Your task to perform on an android device: empty trash in the gmail app Image 0: 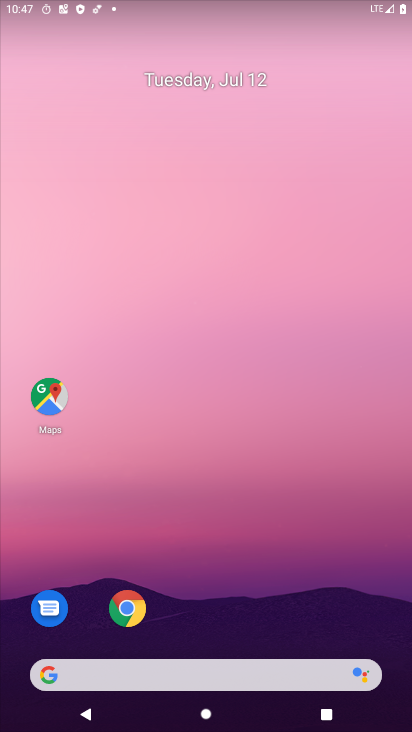
Step 0: drag from (228, 614) to (260, 43)
Your task to perform on an android device: empty trash in the gmail app Image 1: 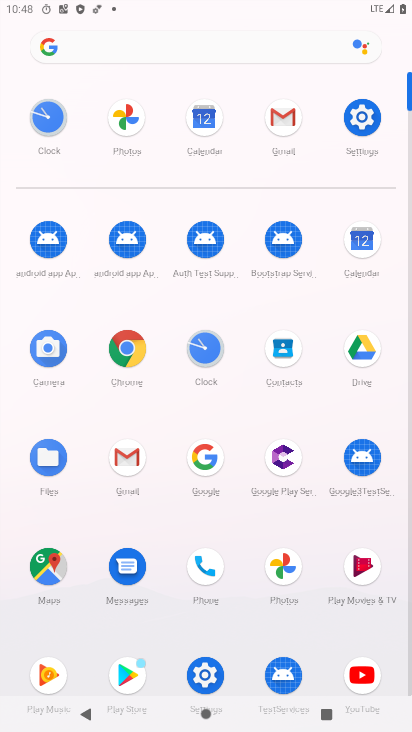
Step 1: click (271, 125)
Your task to perform on an android device: empty trash in the gmail app Image 2: 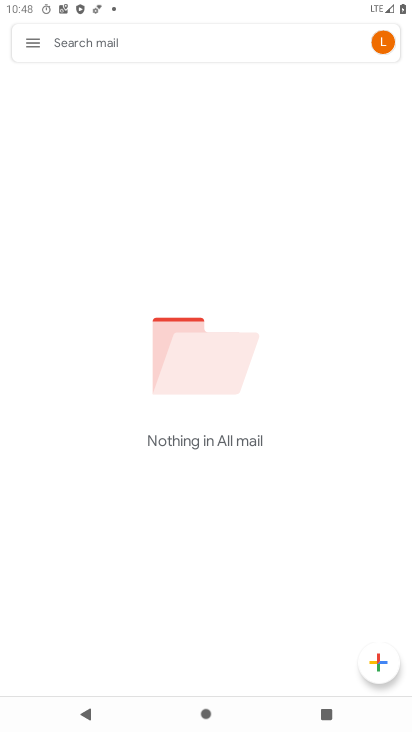
Step 2: click (37, 49)
Your task to perform on an android device: empty trash in the gmail app Image 3: 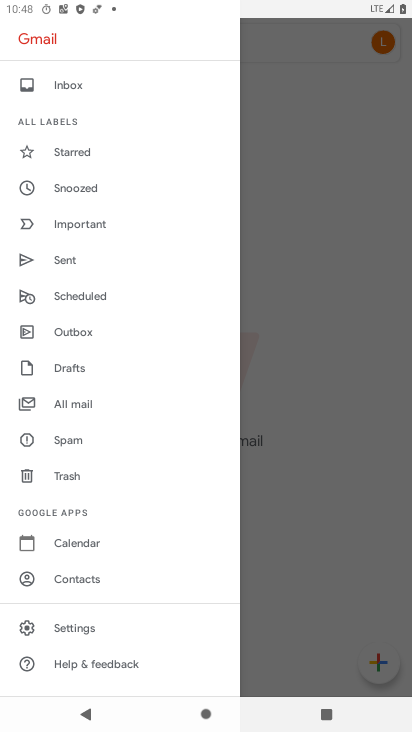
Step 3: click (73, 473)
Your task to perform on an android device: empty trash in the gmail app Image 4: 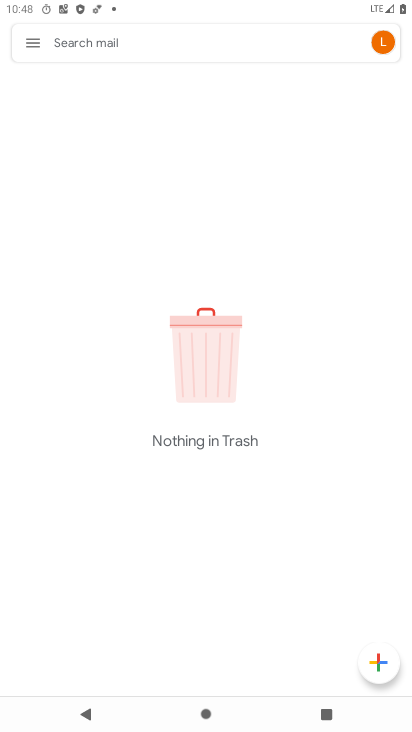
Step 4: task complete